Your task to perform on an android device: Search for Mexican restaurants on Maps Image 0: 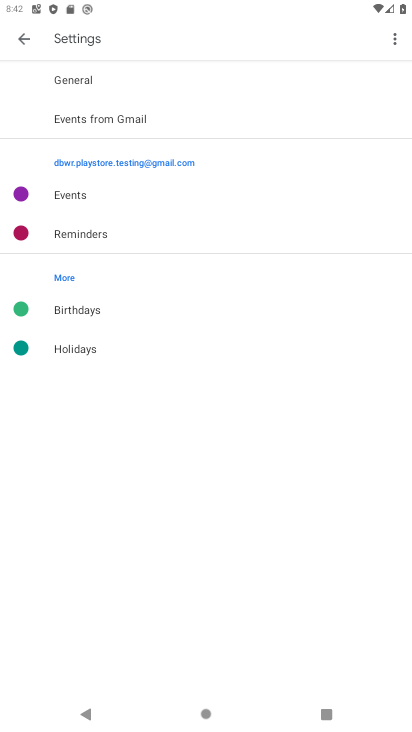
Step 0: press back button
Your task to perform on an android device: Search for Mexican restaurants on Maps Image 1: 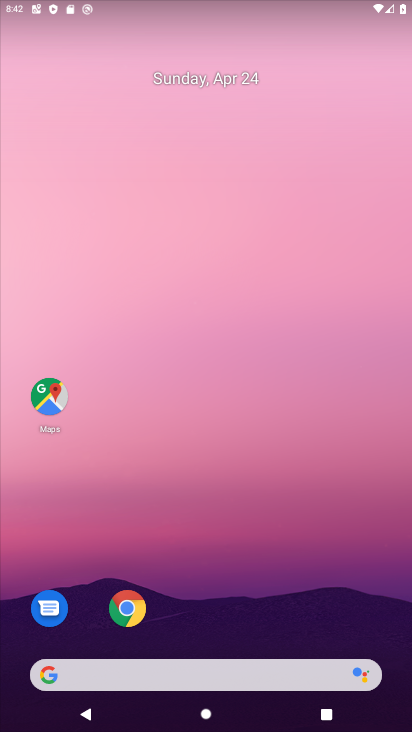
Step 1: click (51, 398)
Your task to perform on an android device: Search for Mexican restaurants on Maps Image 2: 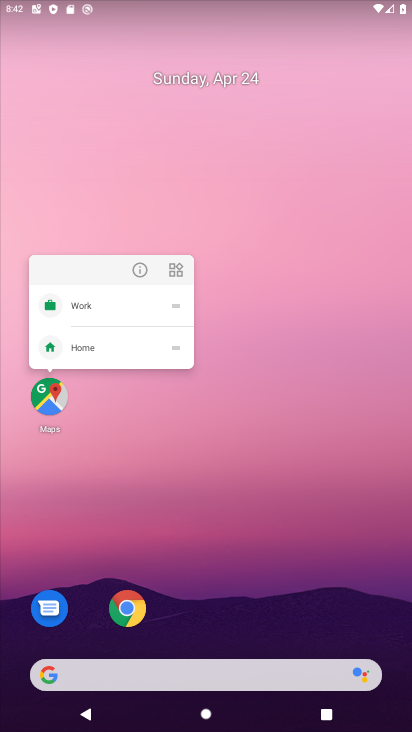
Step 2: click (51, 398)
Your task to perform on an android device: Search for Mexican restaurants on Maps Image 3: 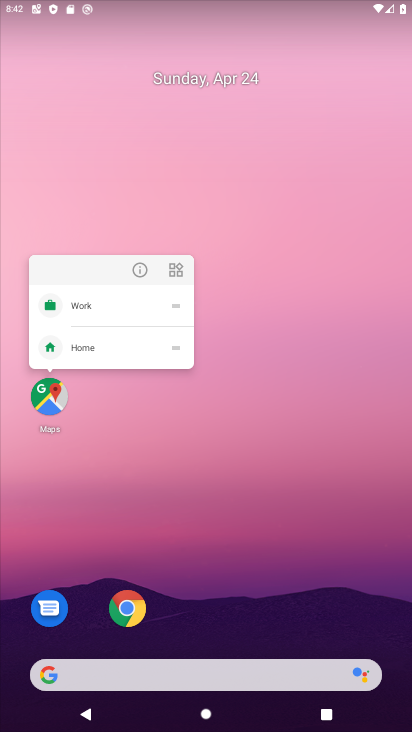
Step 3: click (174, 594)
Your task to perform on an android device: Search for Mexican restaurants on Maps Image 4: 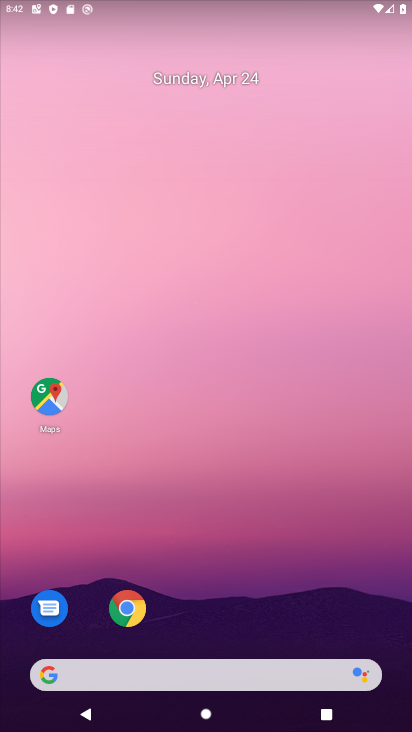
Step 4: drag from (277, 723) to (321, 189)
Your task to perform on an android device: Search for Mexican restaurants on Maps Image 5: 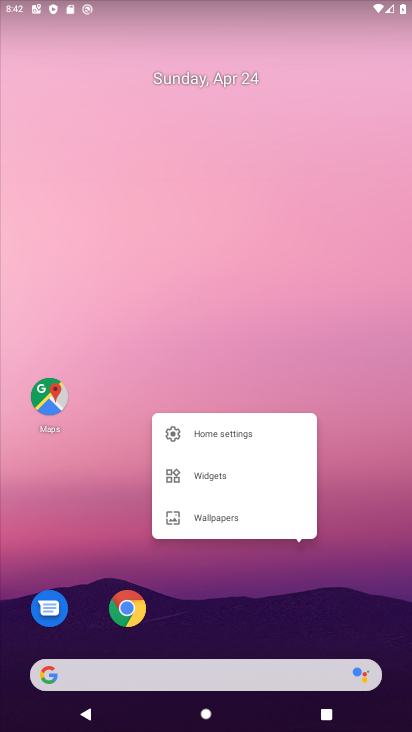
Step 5: click (315, 188)
Your task to perform on an android device: Search for Mexican restaurants on Maps Image 6: 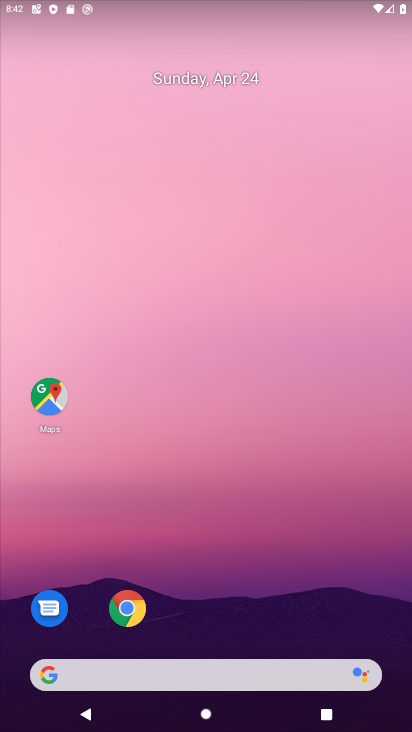
Step 6: drag from (257, 644) to (320, 147)
Your task to perform on an android device: Search for Mexican restaurants on Maps Image 7: 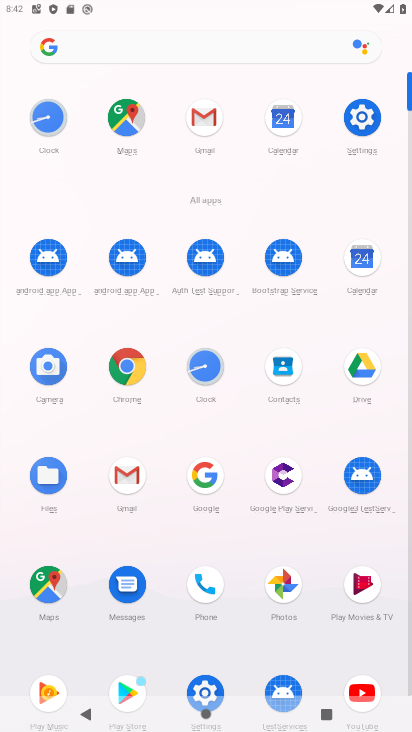
Step 7: click (125, 116)
Your task to perform on an android device: Search for Mexican restaurants on Maps Image 8: 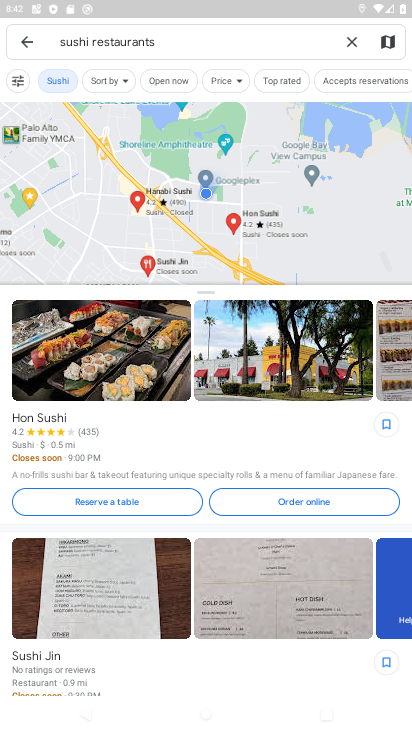
Step 8: click (353, 35)
Your task to perform on an android device: Search for Mexican restaurants on Maps Image 9: 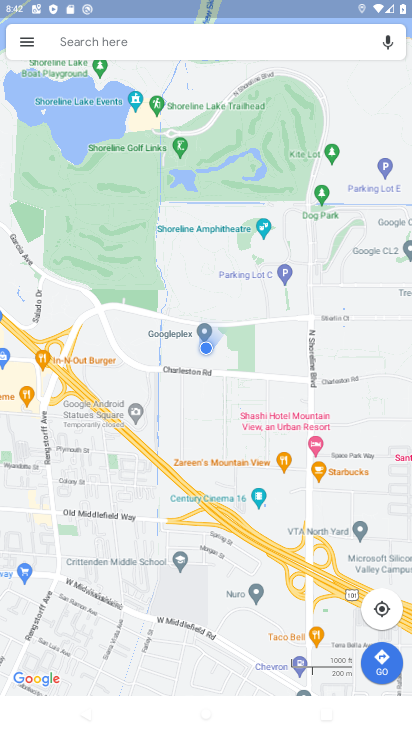
Step 9: click (151, 42)
Your task to perform on an android device: Search for Mexican restaurants on Maps Image 10: 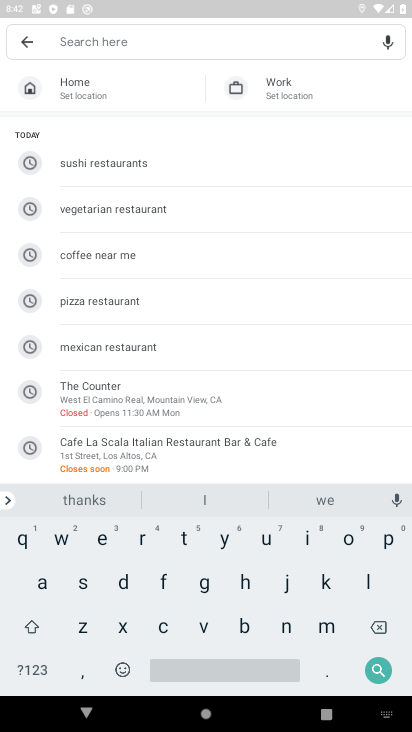
Step 10: click (324, 627)
Your task to perform on an android device: Search for Mexican restaurants on Maps Image 11: 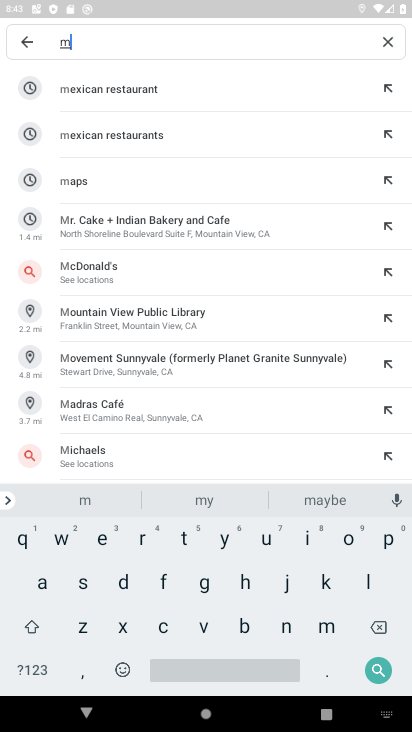
Step 11: click (125, 96)
Your task to perform on an android device: Search for Mexican restaurants on Maps Image 12: 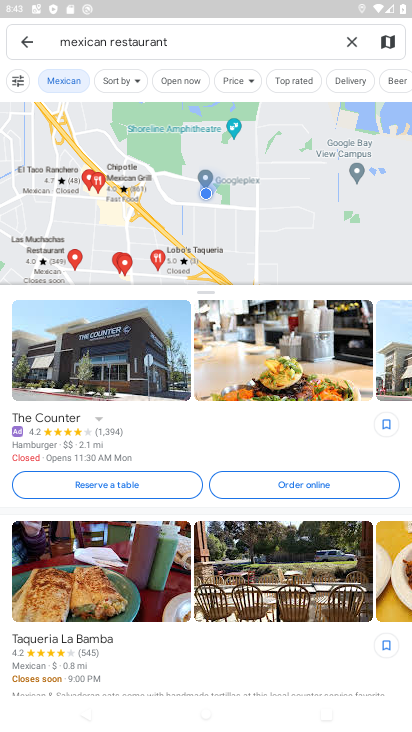
Step 12: click (188, 203)
Your task to perform on an android device: Search for Mexican restaurants on Maps Image 13: 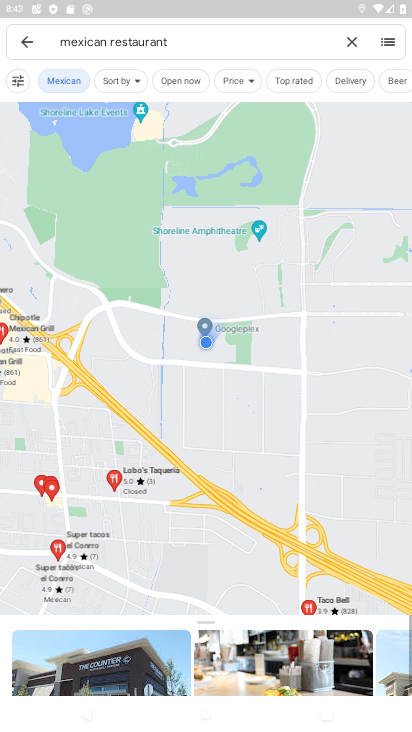
Step 13: task complete